Your task to perform on an android device: What's the weather going to be tomorrow? Image 0: 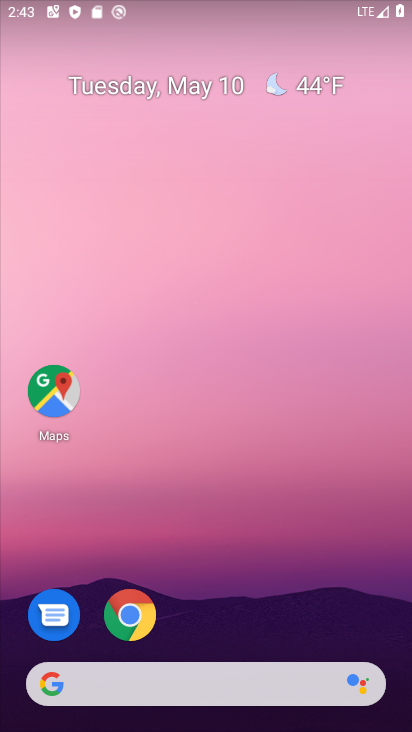
Step 0: drag from (189, 723) to (255, 731)
Your task to perform on an android device: What's the weather going to be tomorrow? Image 1: 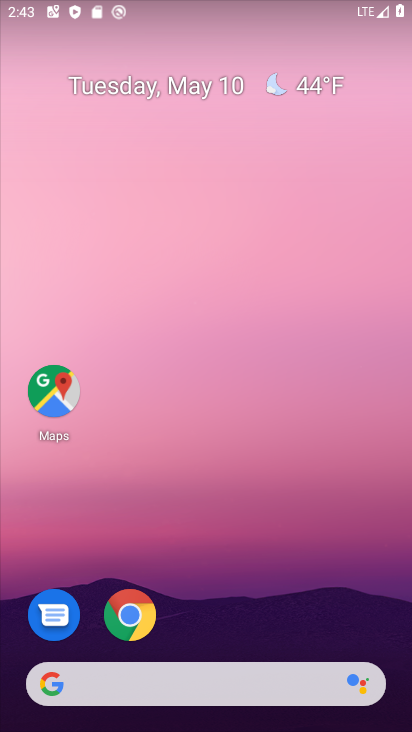
Step 1: click (144, 630)
Your task to perform on an android device: What's the weather going to be tomorrow? Image 2: 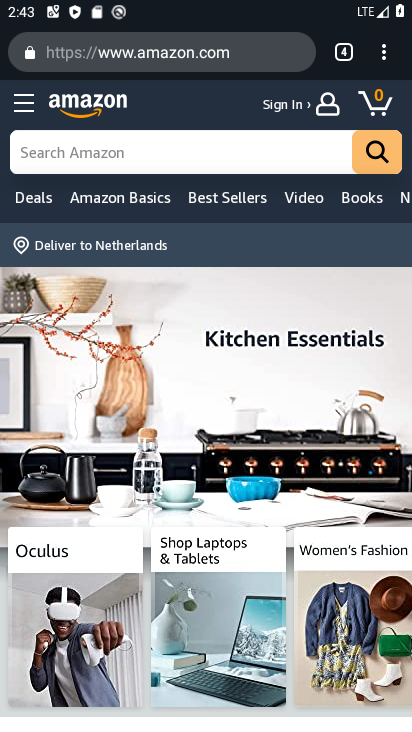
Step 2: click (140, 49)
Your task to perform on an android device: What's the weather going to be tomorrow? Image 3: 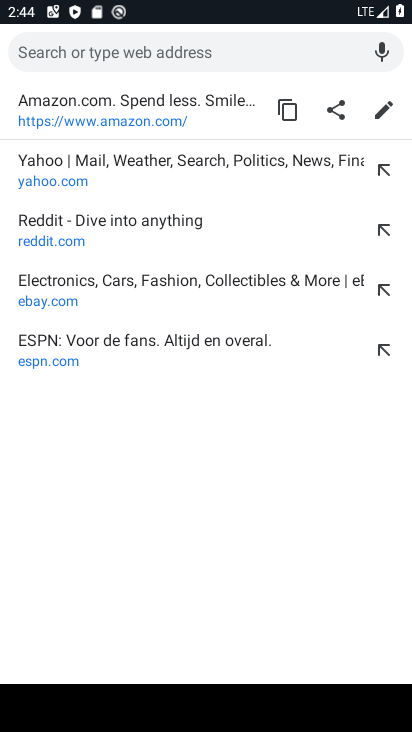
Step 3: type " What's the weather going to be tomorrow?"
Your task to perform on an android device: What's the weather going to be tomorrow? Image 4: 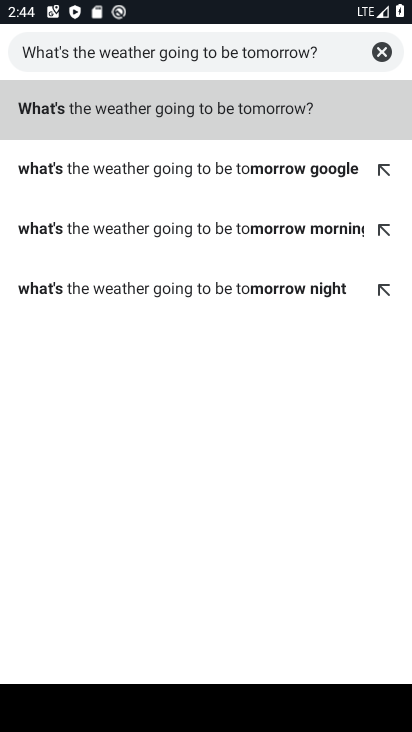
Step 4: click (131, 96)
Your task to perform on an android device: What's the weather going to be tomorrow? Image 5: 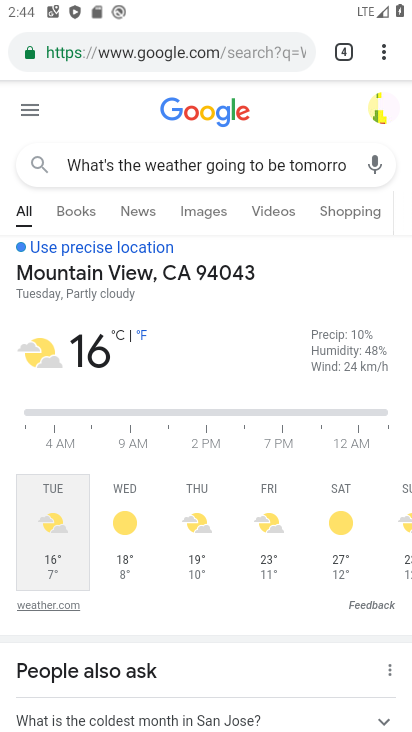
Step 5: task complete